Your task to perform on an android device: Go to display settings Image 0: 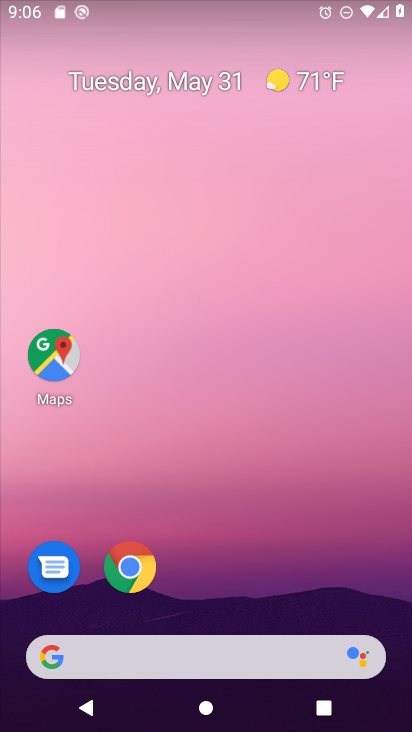
Step 0: drag from (232, 642) to (228, 224)
Your task to perform on an android device: Go to display settings Image 1: 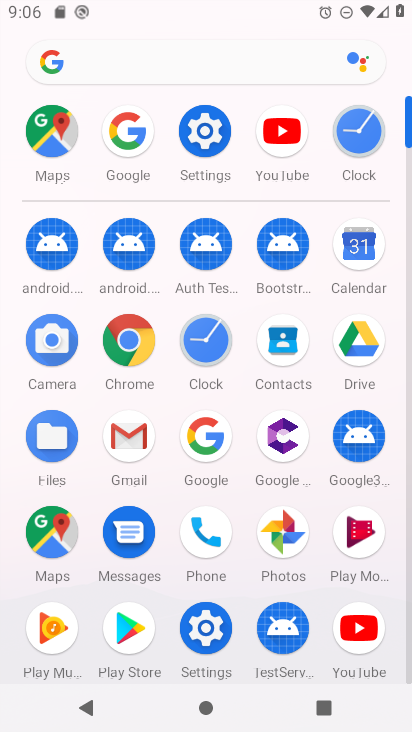
Step 1: click (204, 148)
Your task to perform on an android device: Go to display settings Image 2: 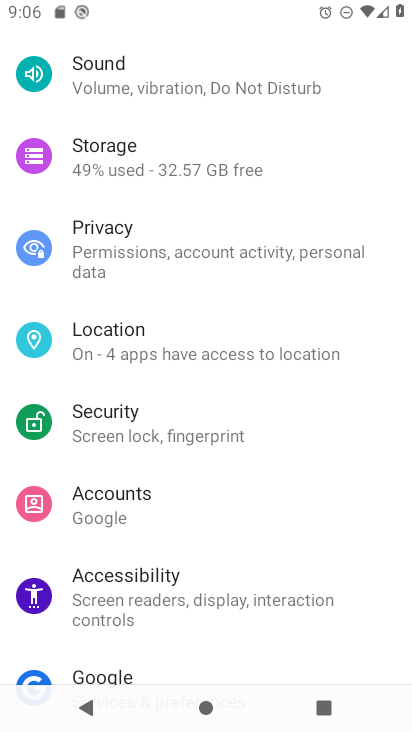
Step 2: drag from (219, 100) to (239, 613)
Your task to perform on an android device: Go to display settings Image 3: 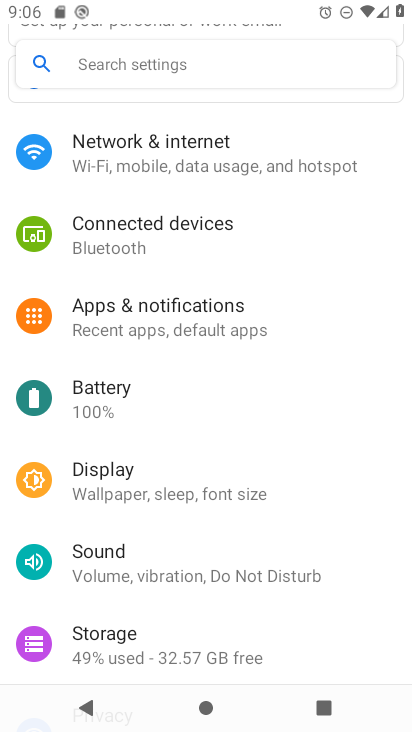
Step 3: click (121, 492)
Your task to perform on an android device: Go to display settings Image 4: 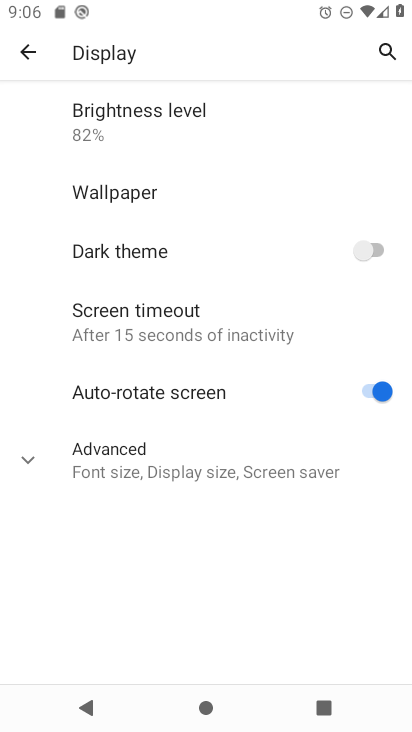
Step 4: click (124, 462)
Your task to perform on an android device: Go to display settings Image 5: 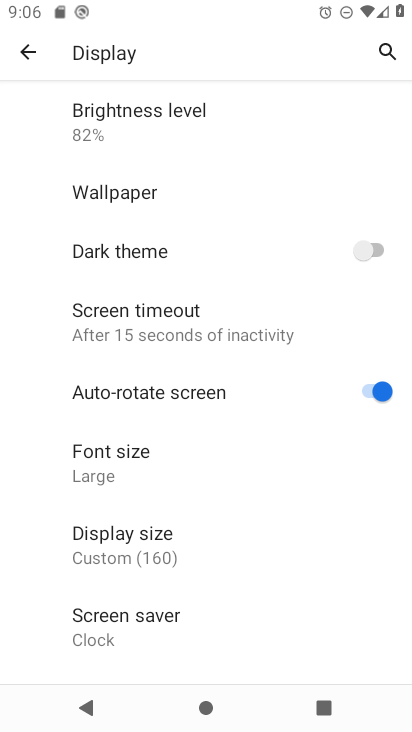
Step 5: task complete